Your task to perform on an android device: visit the assistant section in the google photos Image 0: 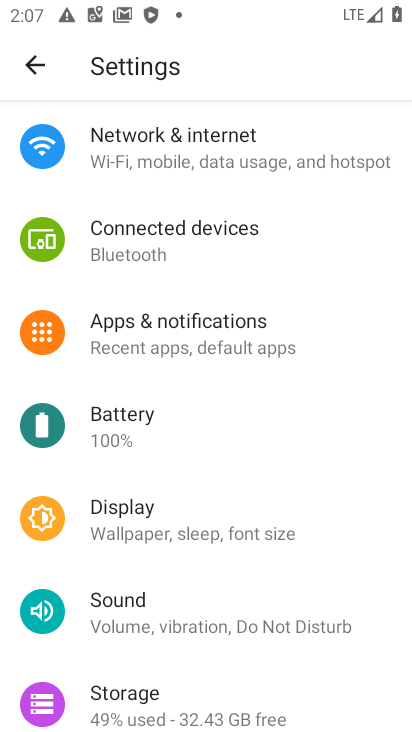
Step 0: press home button
Your task to perform on an android device: visit the assistant section in the google photos Image 1: 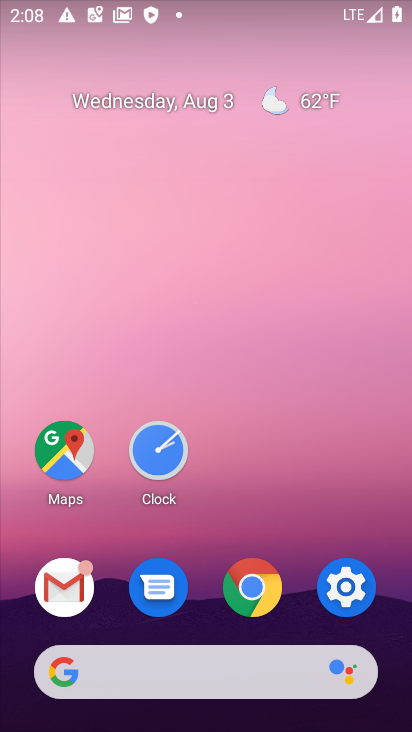
Step 1: drag from (315, 538) to (239, 7)
Your task to perform on an android device: visit the assistant section in the google photos Image 2: 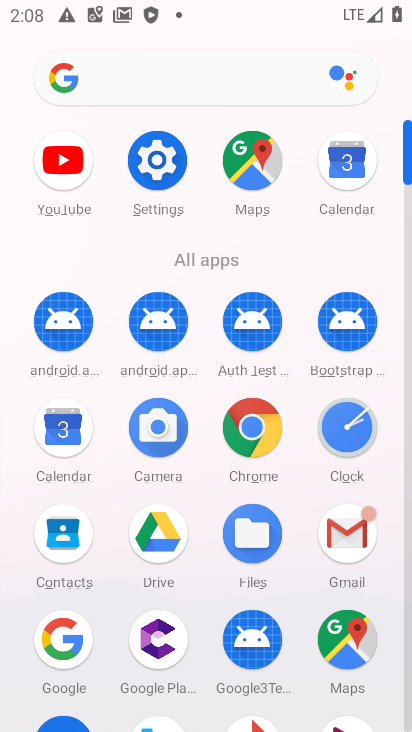
Step 2: drag from (205, 617) to (219, 197)
Your task to perform on an android device: visit the assistant section in the google photos Image 3: 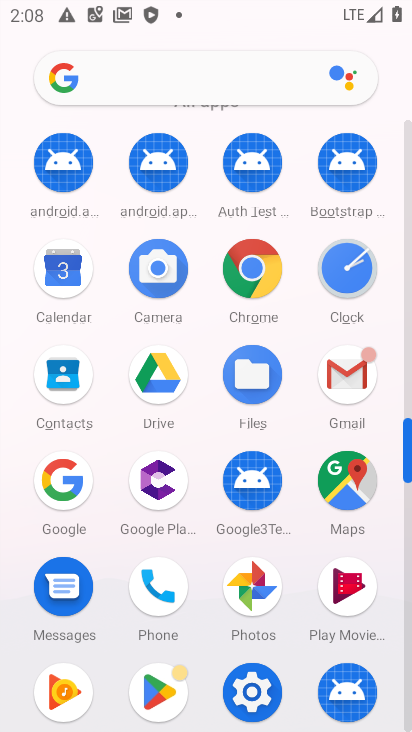
Step 3: click (247, 573)
Your task to perform on an android device: visit the assistant section in the google photos Image 4: 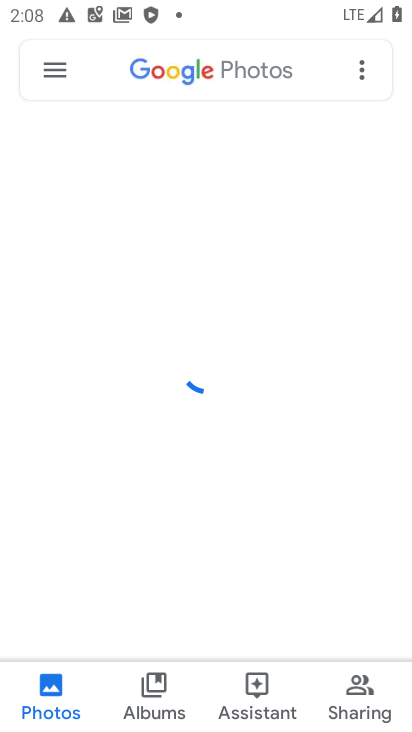
Step 4: click (247, 685)
Your task to perform on an android device: visit the assistant section in the google photos Image 5: 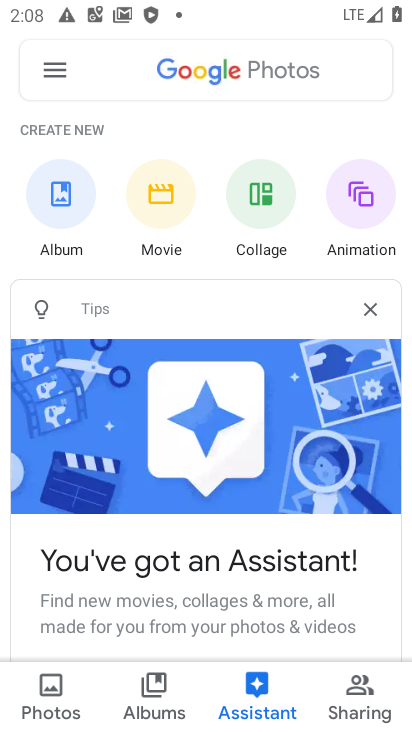
Step 5: task complete